Your task to perform on an android device: change notifications settings Image 0: 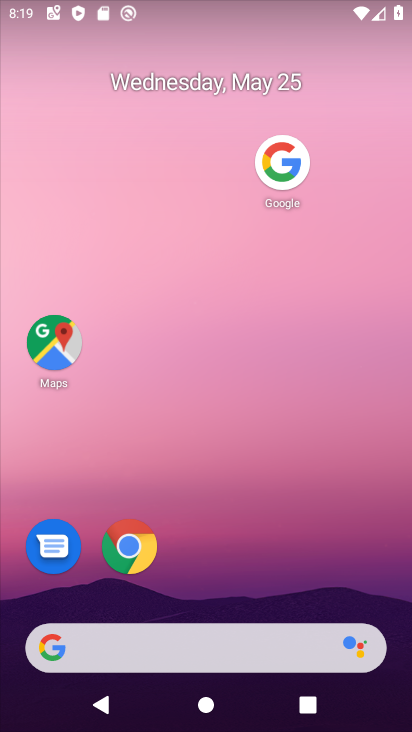
Step 0: drag from (208, 631) to (364, 83)
Your task to perform on an android device: change notifications settings Image 1: 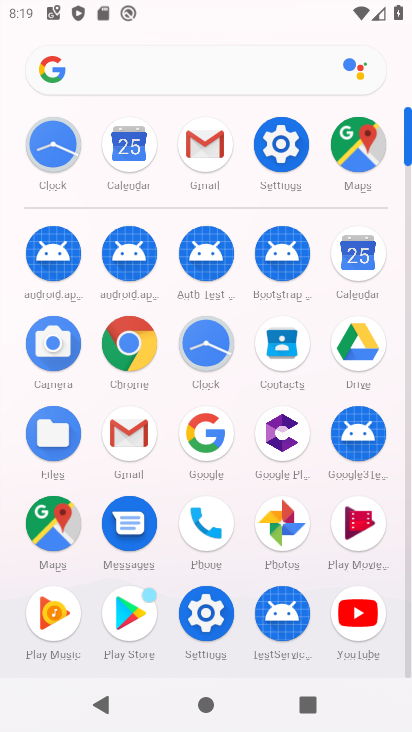
Step 1: click (286, 146)
Your task to perform on an android device: change notifications settings Image 2: 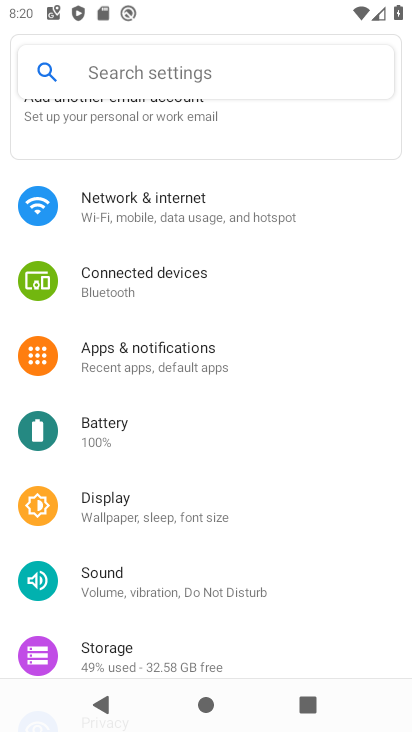
Step 2: click (168, 354)
Your task to perform on an android device: change notifications settings Image 3: 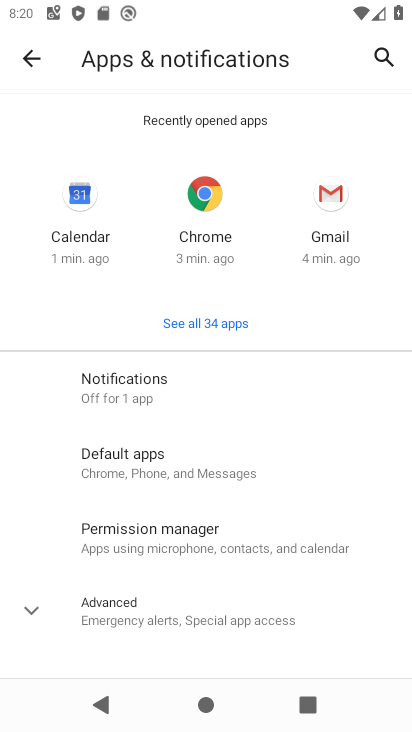
Step 3: click (132, 392)
Your task to perform on an android device: change notifications settings Image 4: 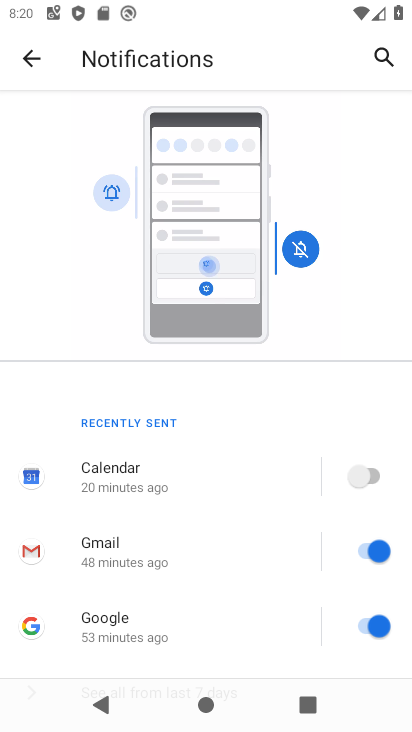
Step 4: drag from (307, 542) to (369, 399)
Your task to perform on an android device: change notifications settings Image 5: 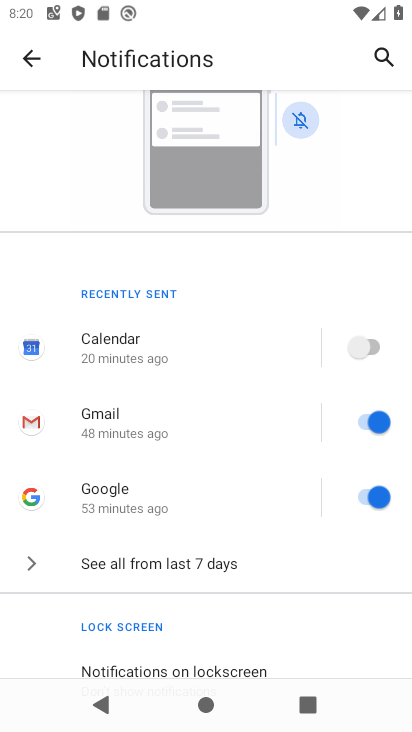
Step 5: click (379, 345)
Your task to perform on an android device: change notifications settings Image 6: 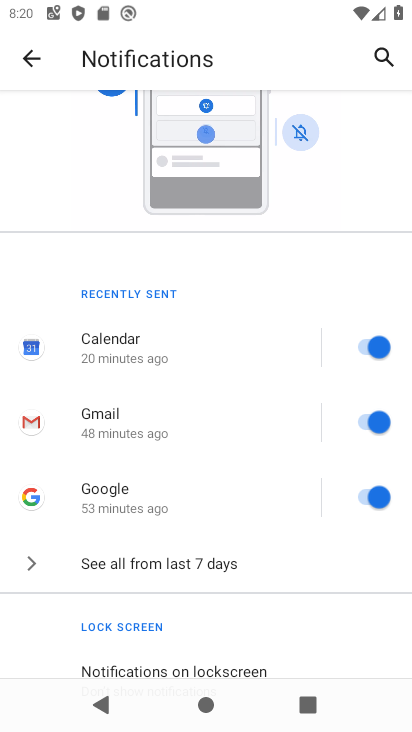
Step 6: task complete